Your task to perform on an android device: toggle wifi Image 0: 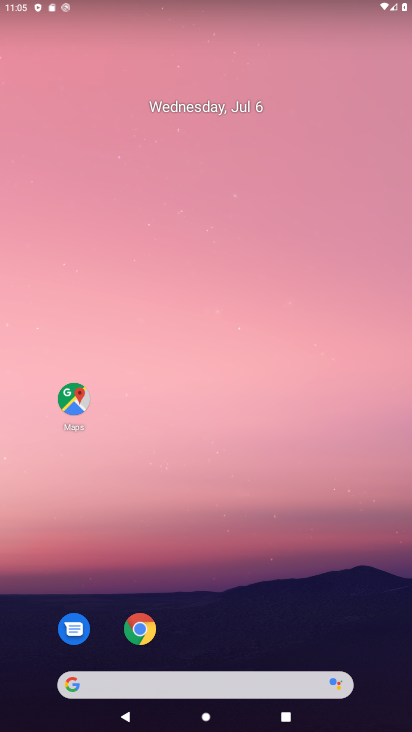
Step 0: drag from (231, 624) to (201, 171)
Your task to perform on an android device: toggle wifi Image 1: 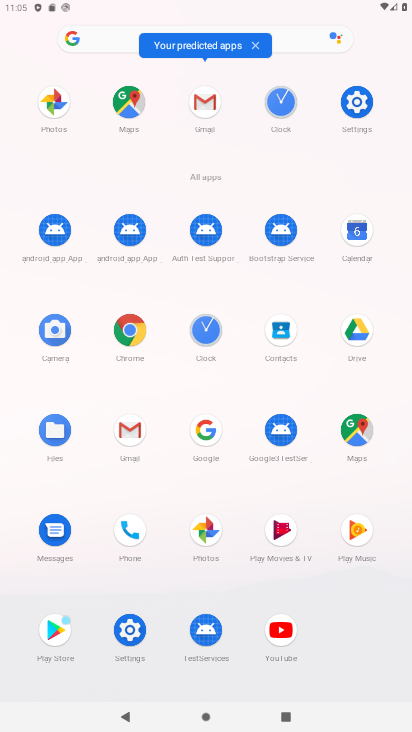
Step 1: click (348, 116)
Your task to perform on an android device: toggle wifi Image 2: 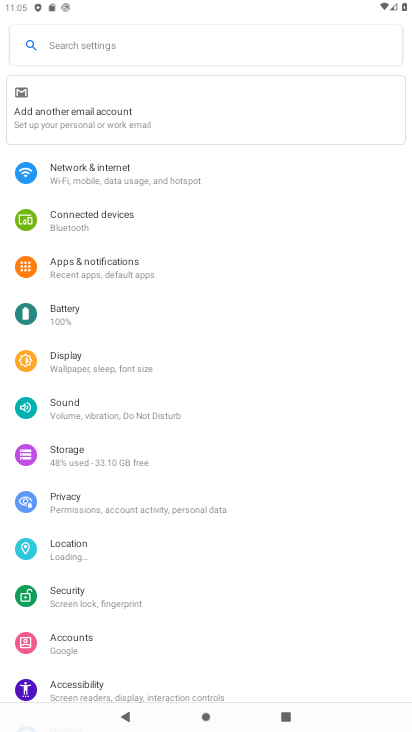
Step 2: click (193, 173)
Your task to perform on an android device: toggle wifi Image 3: 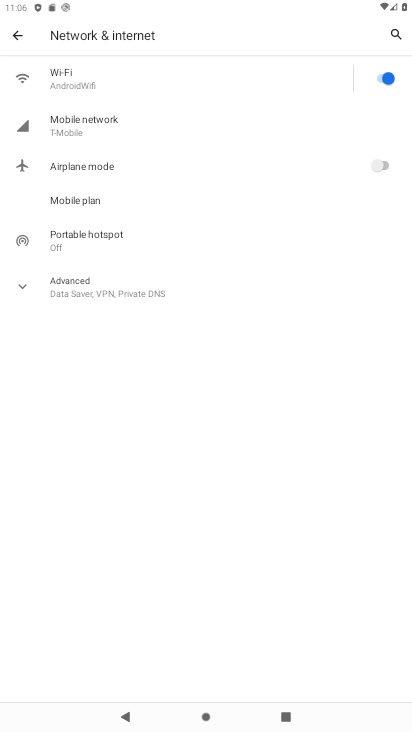
Step 3: click (374, 75)
Your task to perform on an android device: toggle wifi Image 4: 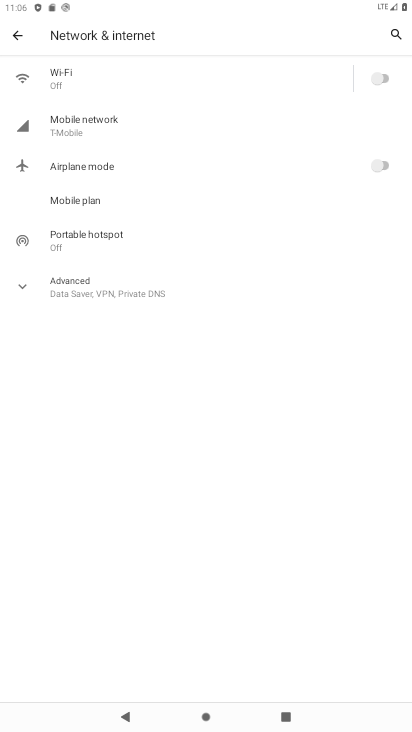
Step 4: task complete